Your task to perform on an android device: move a message to another label in the gmail app Image 0: 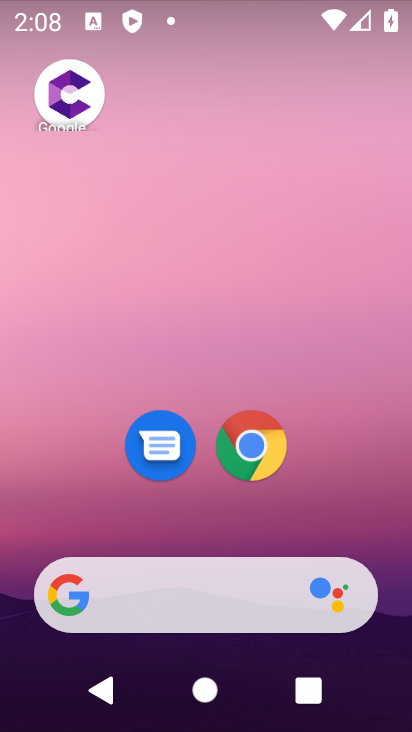
Step 0: drag from (256, 544) to (151, 151)
Your task to perform on an android device: move a message to another label in the gmail app Image 1: 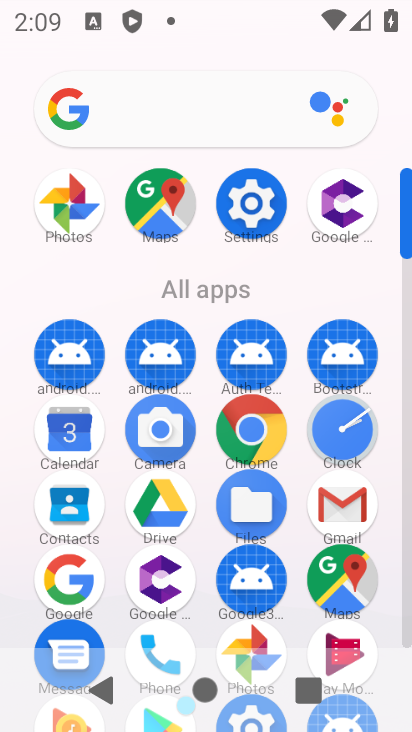
Step 1: click (356, 485)
Your task to perform on an android device: move a message to another label in the gmail app Image 2: 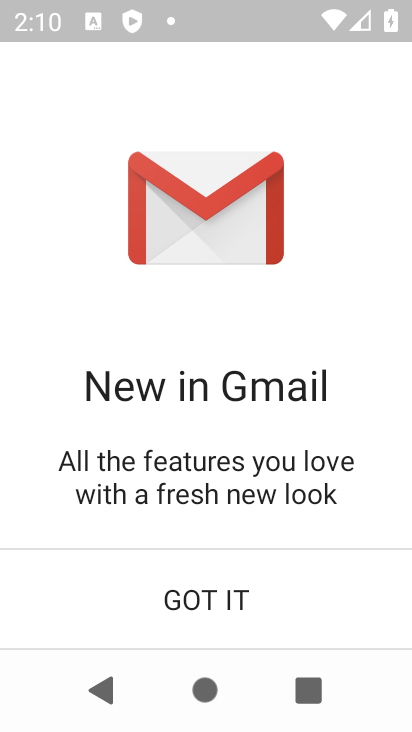
Step 2: click (254, 646)
Your task to perform on an android device: move a message to another label in the gmail app Image 3: 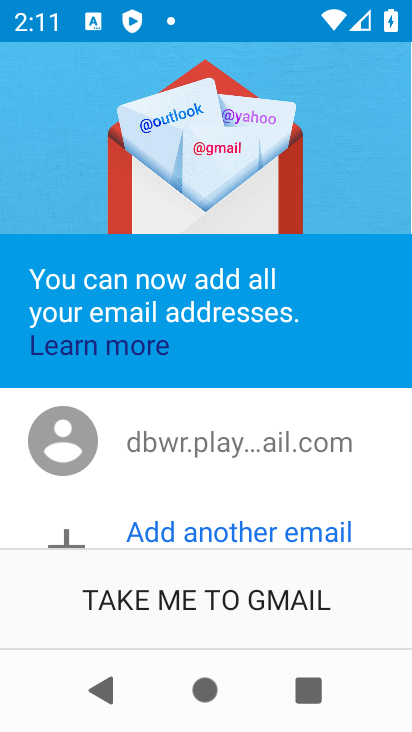
Step 3: click (202, 577)
Your task to perform on an android device: move a message to another label in the gmail app Image 4: 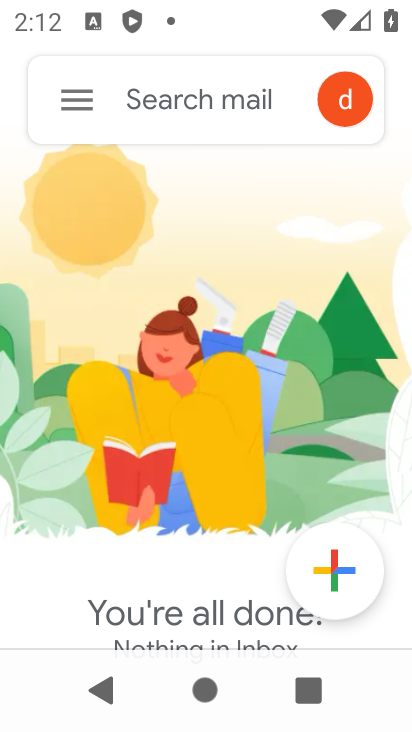
Step 4: task complete